Your task to perform on an android device: Open the web browser Image 0: 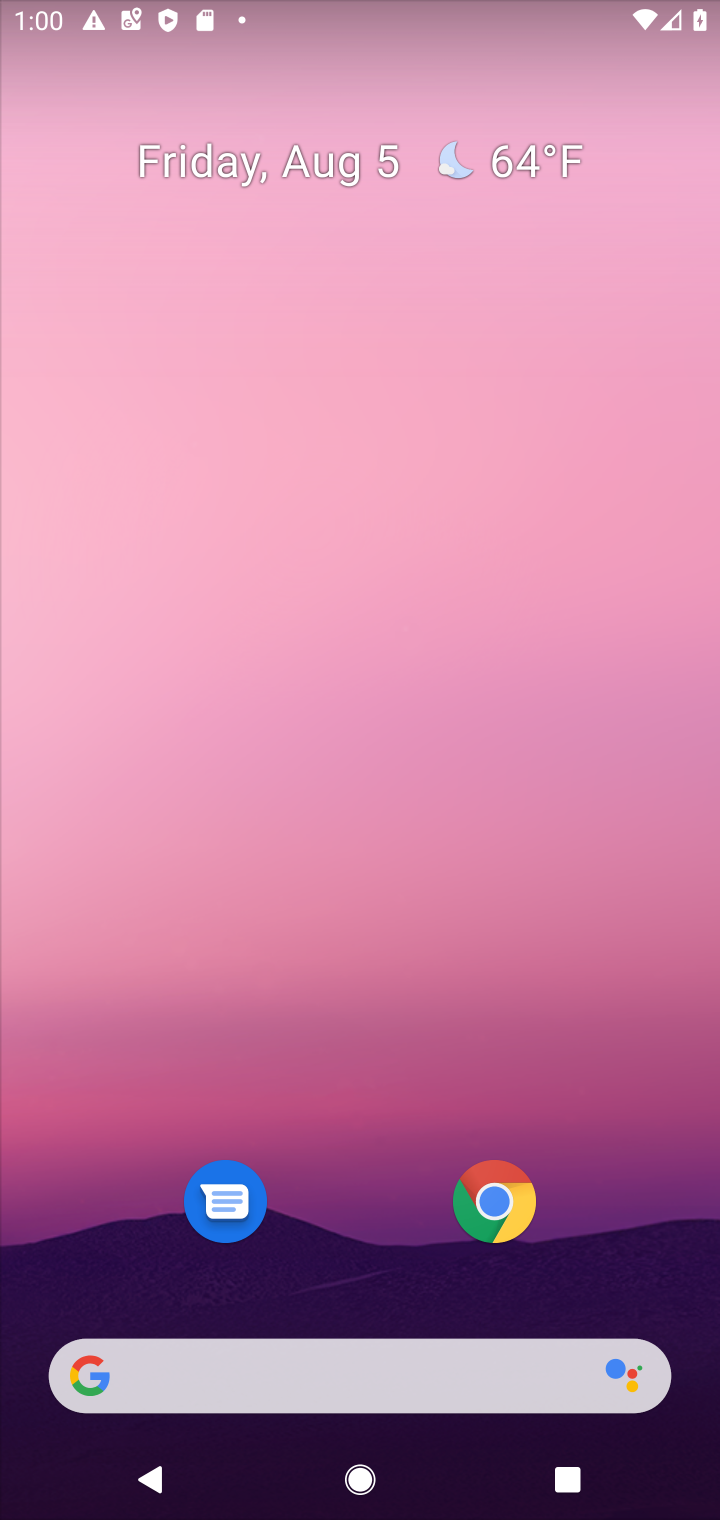
Step 0: click (518, 1218)
Your task to perform on an android device: Open the web browser Image 1: 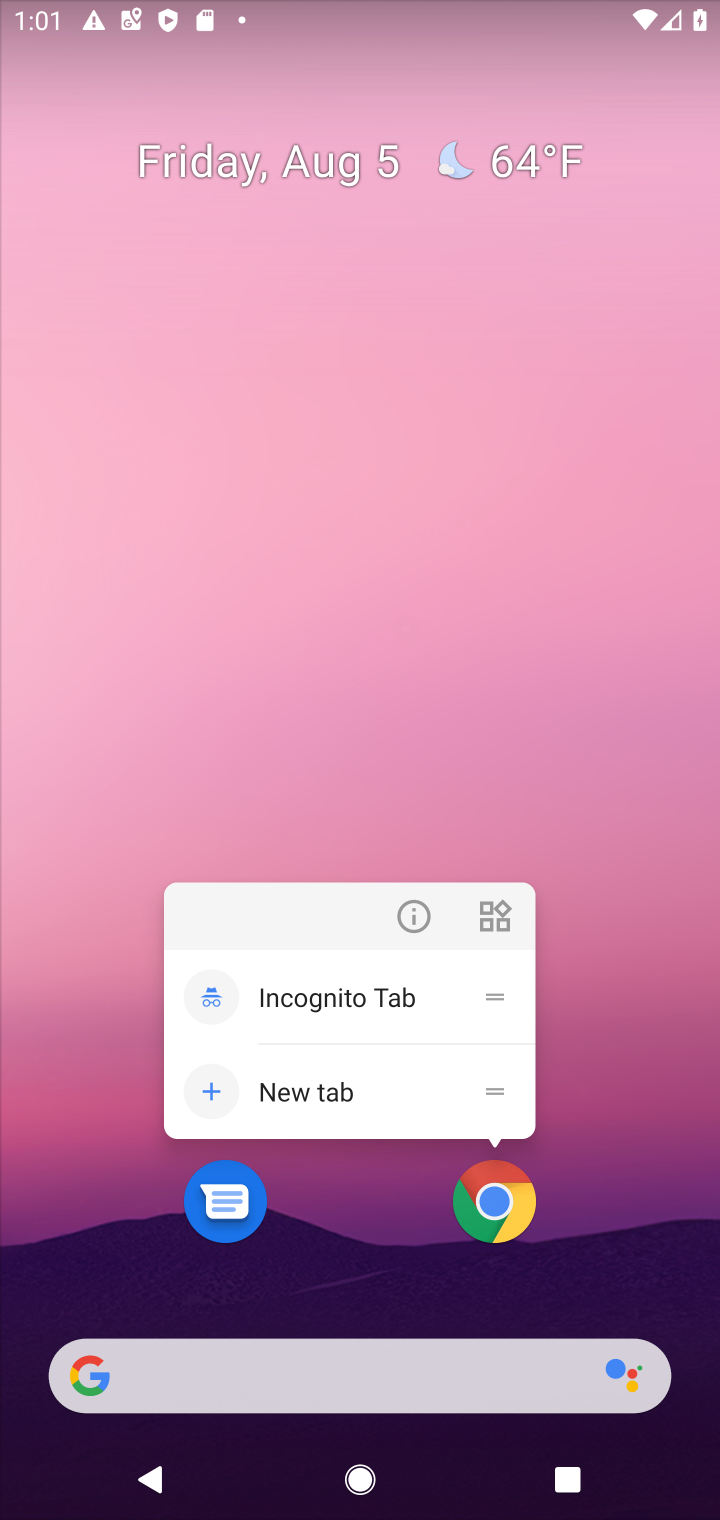
Step 1: click (506, 1208)
Your task to perform on an android device: Open the web browser Image 2: 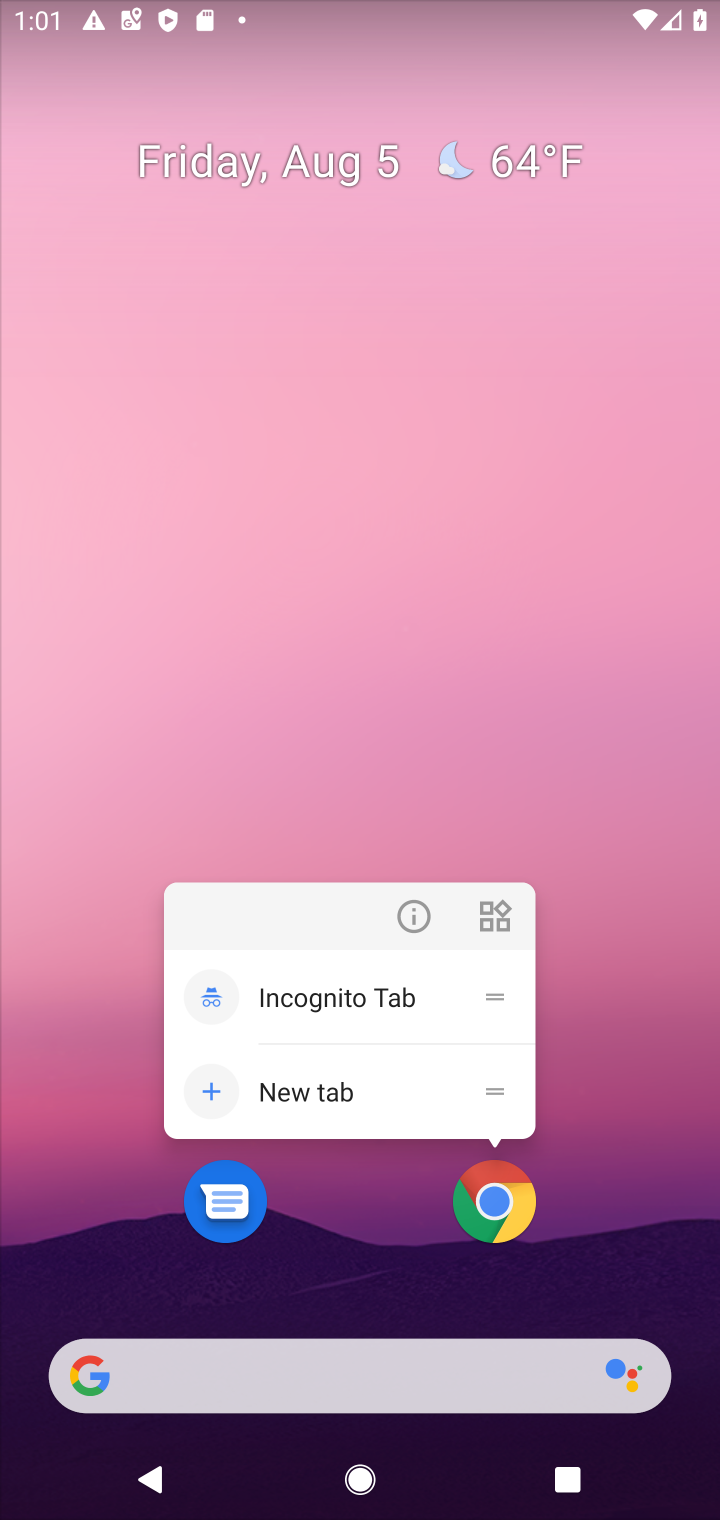
Step 2: click (510, 1209)
Your task to perform on an android device: Open the web browser Image 3: 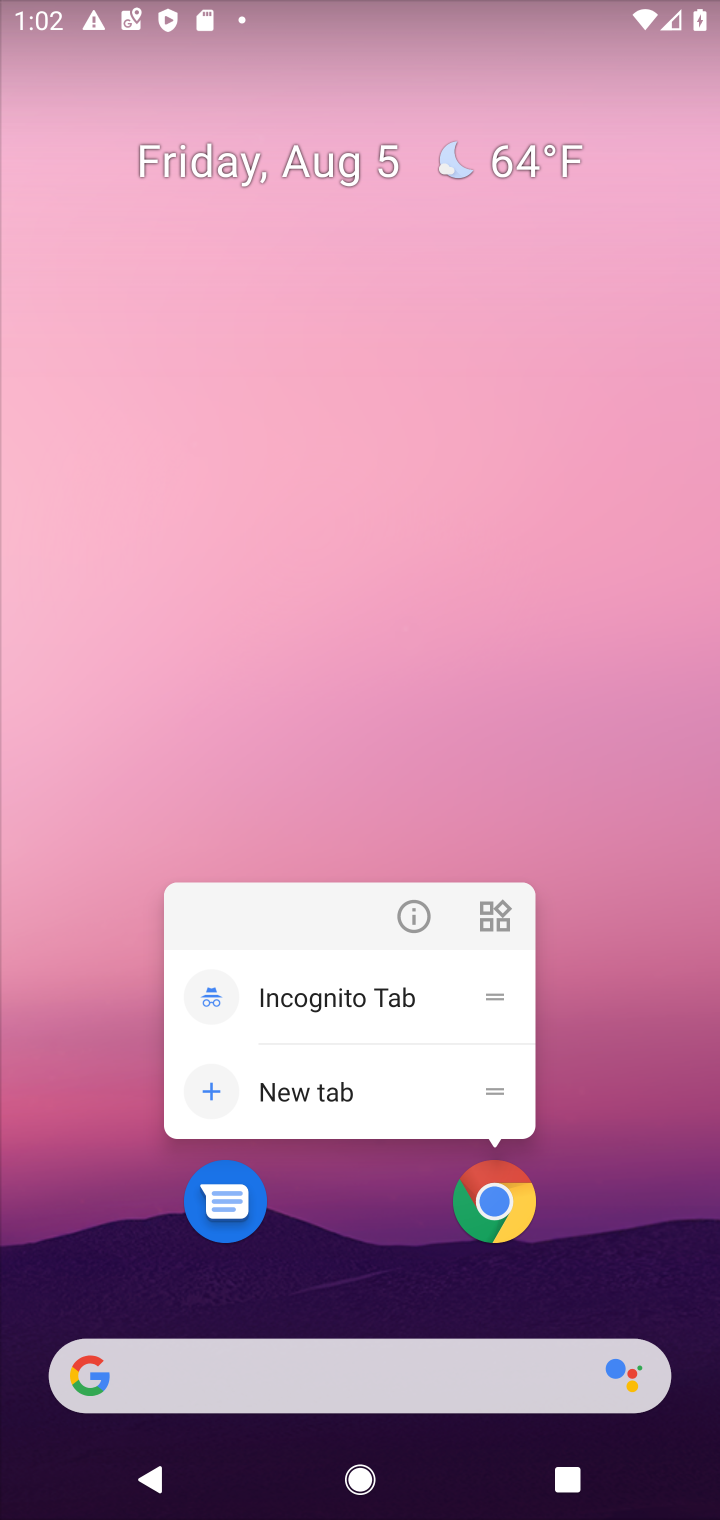
Step 3: click (481, 1222)
Your task to perform on an android device: Open the web browser Image 4: 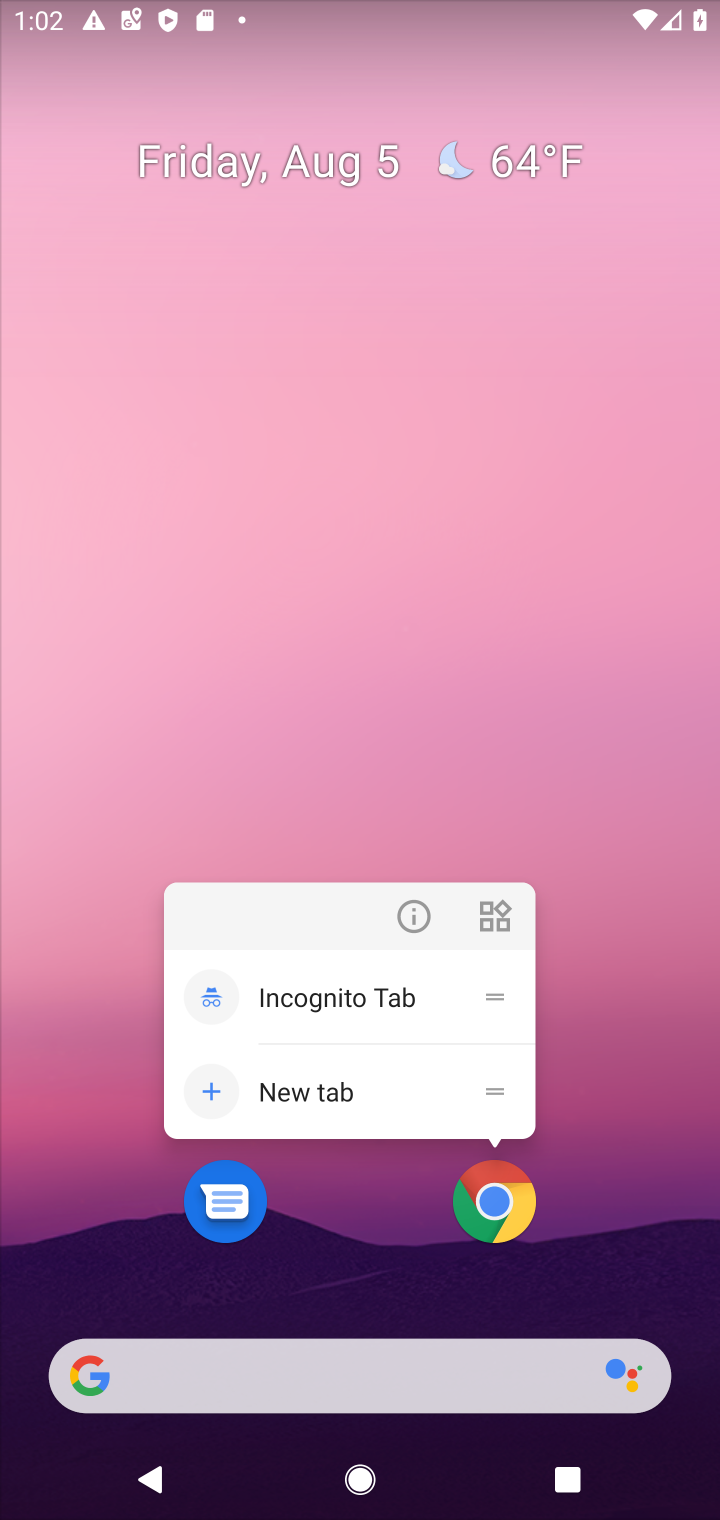
Step 4: click (489, 1215)
Your task to perform on an android device: Open the web browser Image 5: 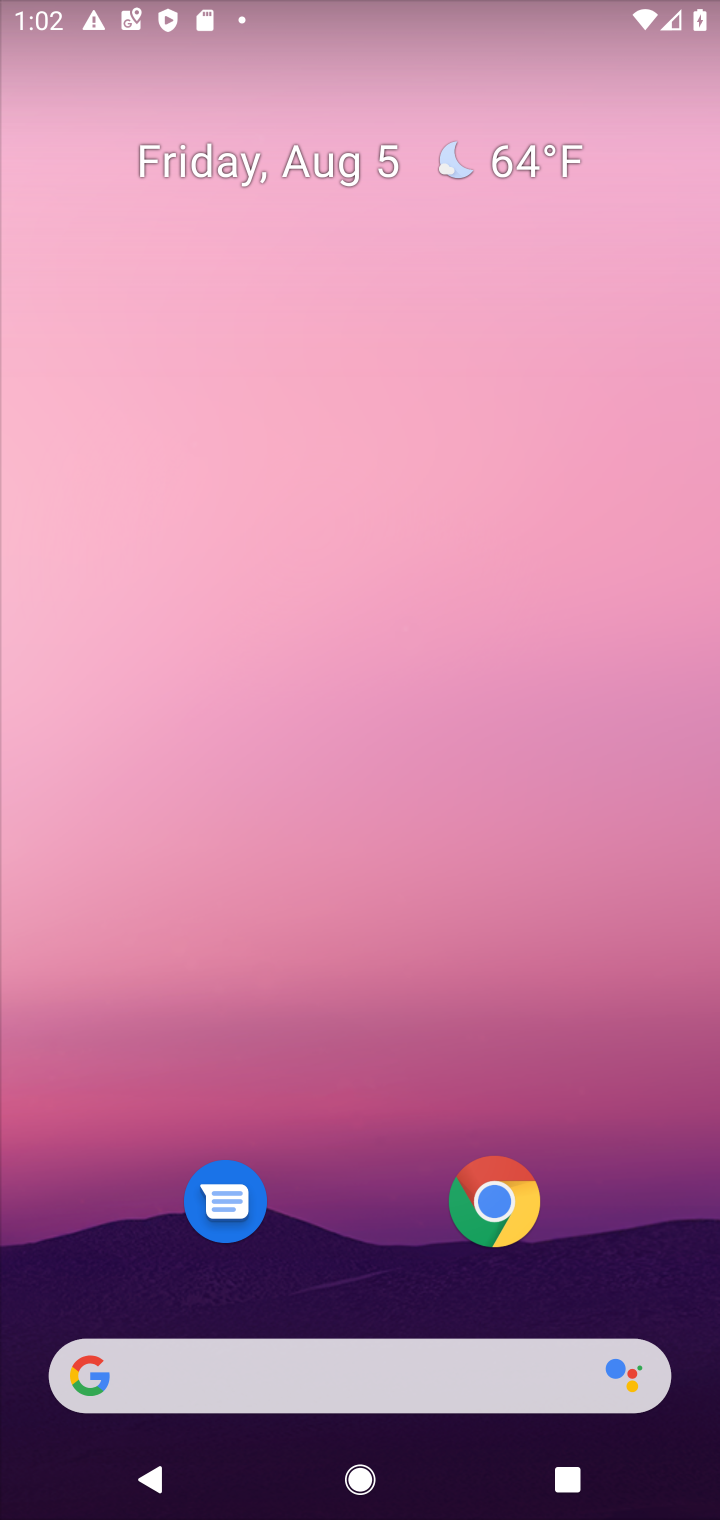
Step 5: click (489, 1215)
Your task to perform on an android device: Open the web browser Image 6: 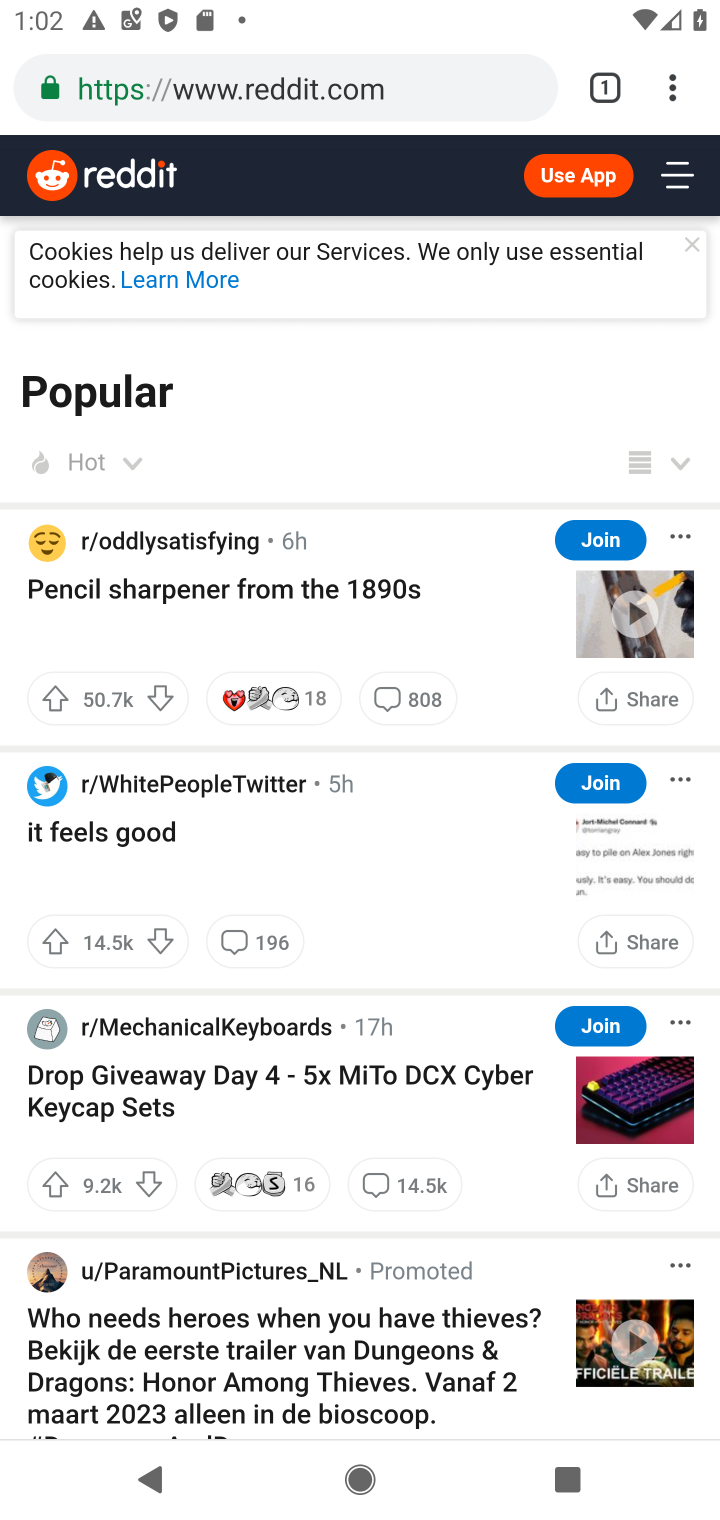
Step 6: task complete